Your task to perform on an android device: toggle data saver in the chrome app Image 0: 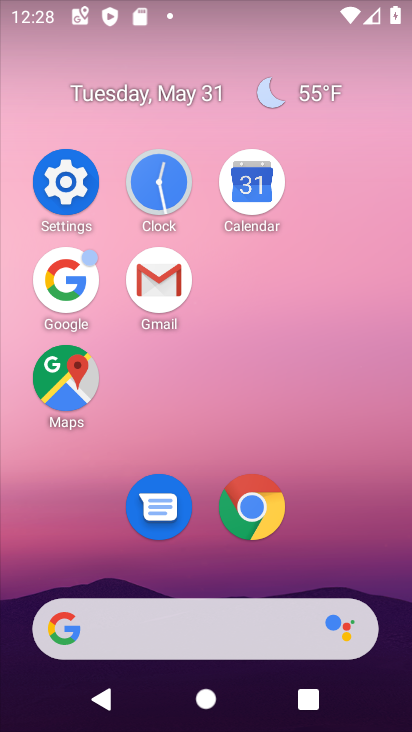
Step 0: click (268, 502)
Your task to perform on an android device: toggle data saver in the chrome app Image 1: 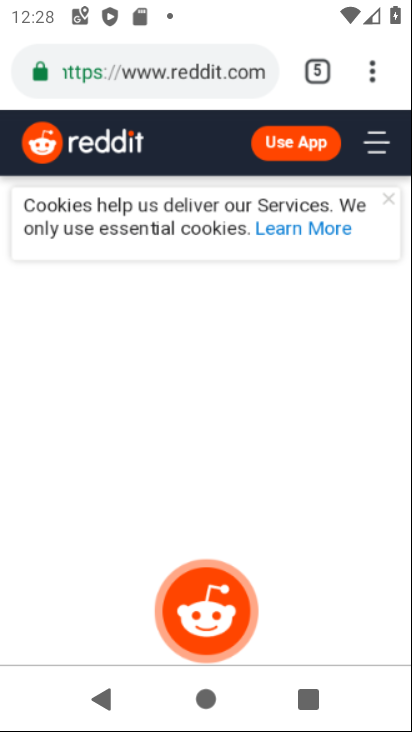
Step 1: click (373, 74)
Your task to perform on an android device: toggle data saver in the chrome app Image 2: 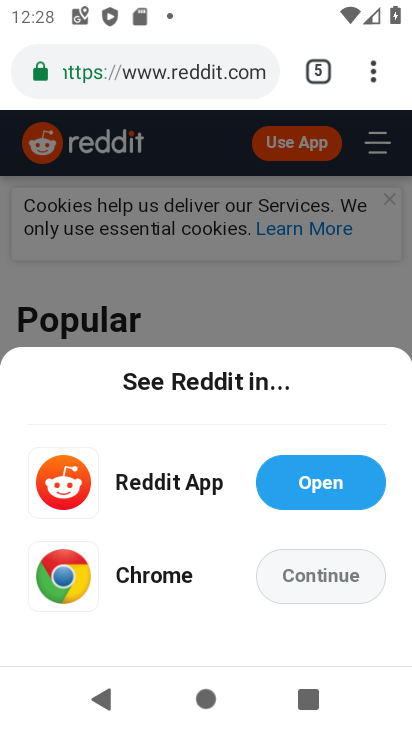
Step 2: click (377, 86)
Your task to perform on an android device: toggle data saver in the chrome app Image 3: 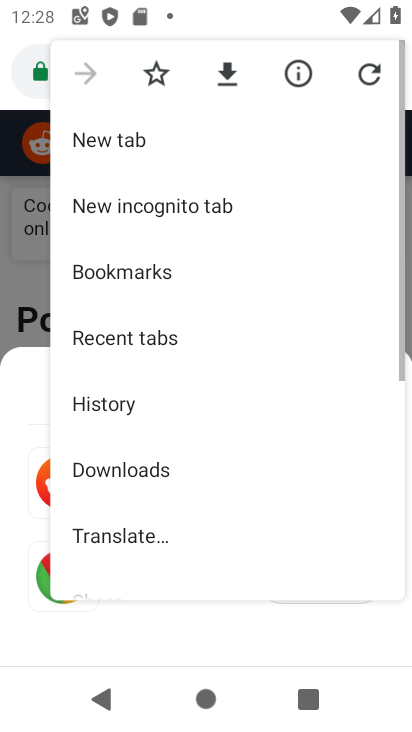
Step 3: drag from (256, 492) to (258, 208)
Your task to perform on an android device: toggle data saver in the chrome app Image 4: 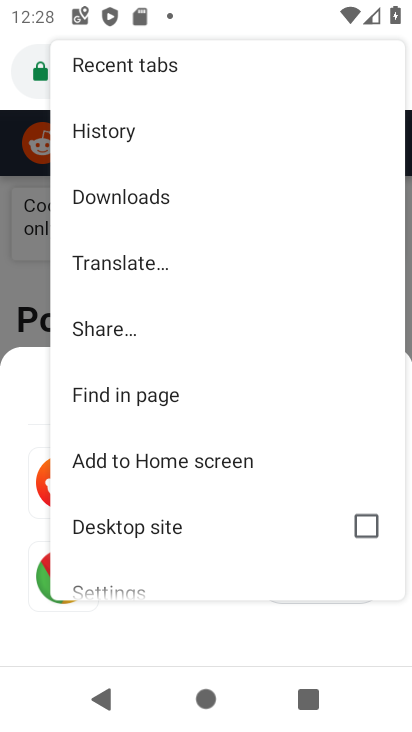
Step 4: drag from (166, 515) to (221, 240)
Your task to perform on an android device: toggle data saver in the chrome app Image 5: 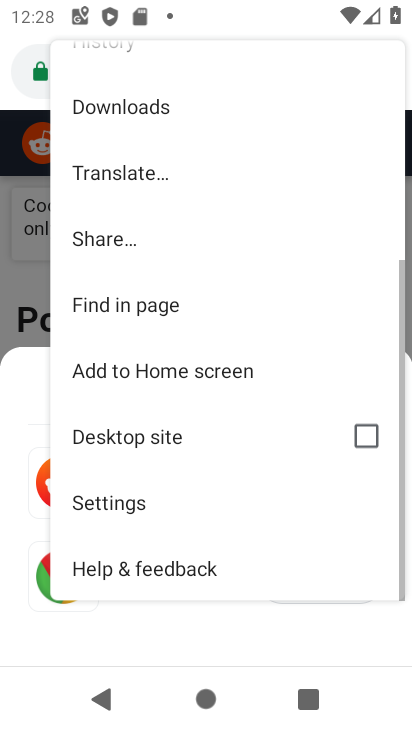
Step 5: click (142, 504)
Your task to perform on an android device: toggle data saver in the chrome app Image 6: 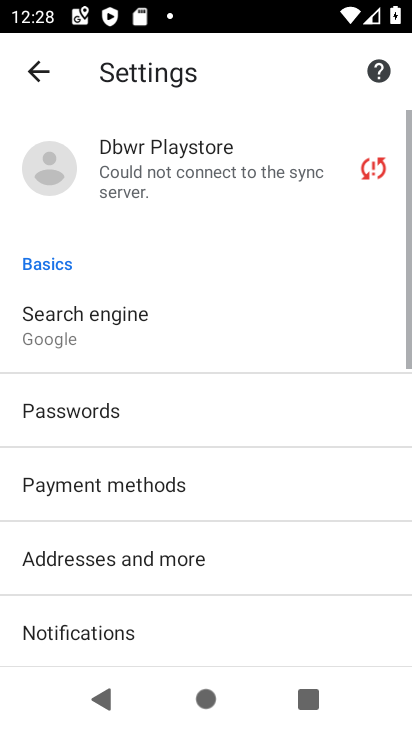
Step 6: drag from (186, 566) to (230, 302)
Your task to perform on an android device: toggle data saver in the chrome app Image 7: 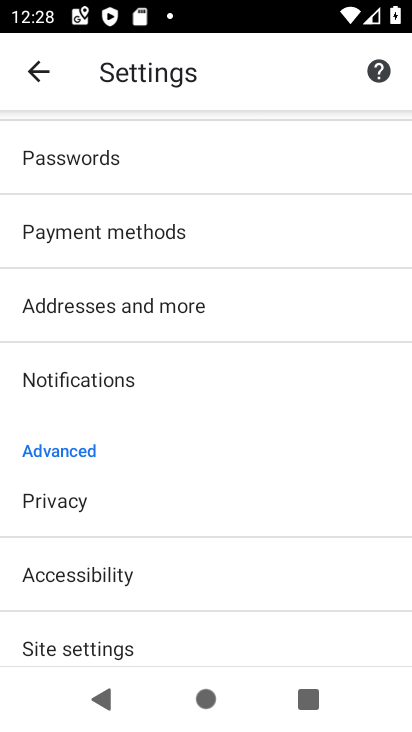
Step 7: drag from (181, 545) to (208, 266)
Your task to perform on an android device: toggle data saver in the chrome app Image 8: 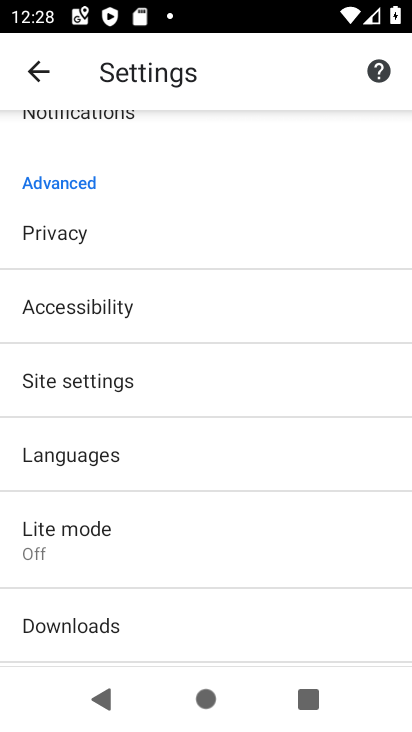
Step 8: click (128, 527)
Your task to perform on an android device: toggle data saver in the chrome app Image 9: 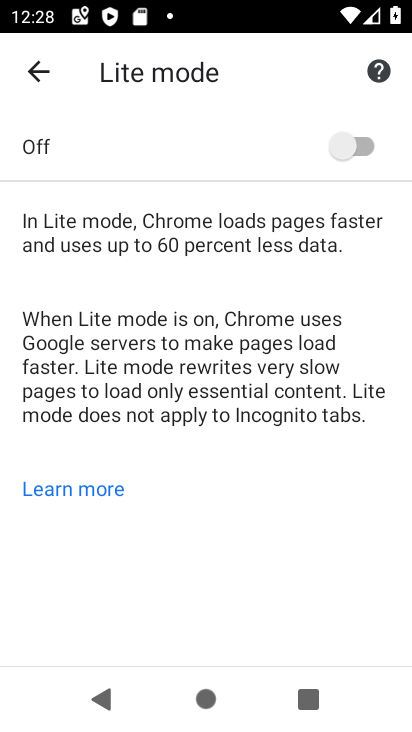
Step 9: click (361, 148)
Your task to perform on an android device: toggle data saver in the chrome app Image 10: 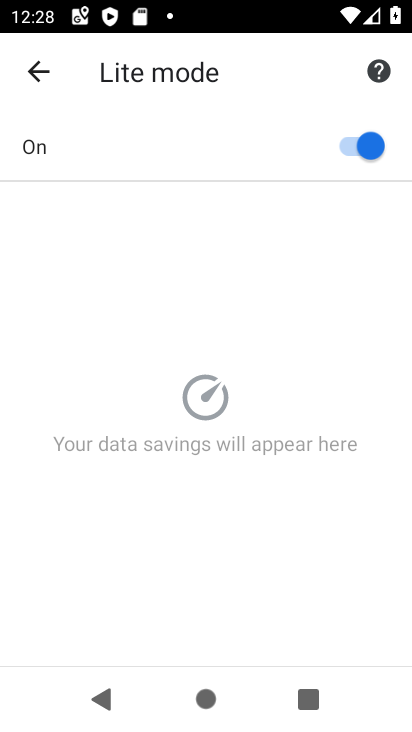
Step 10: task complete